Your task to perform on an android device: toggle wifi Image 0: 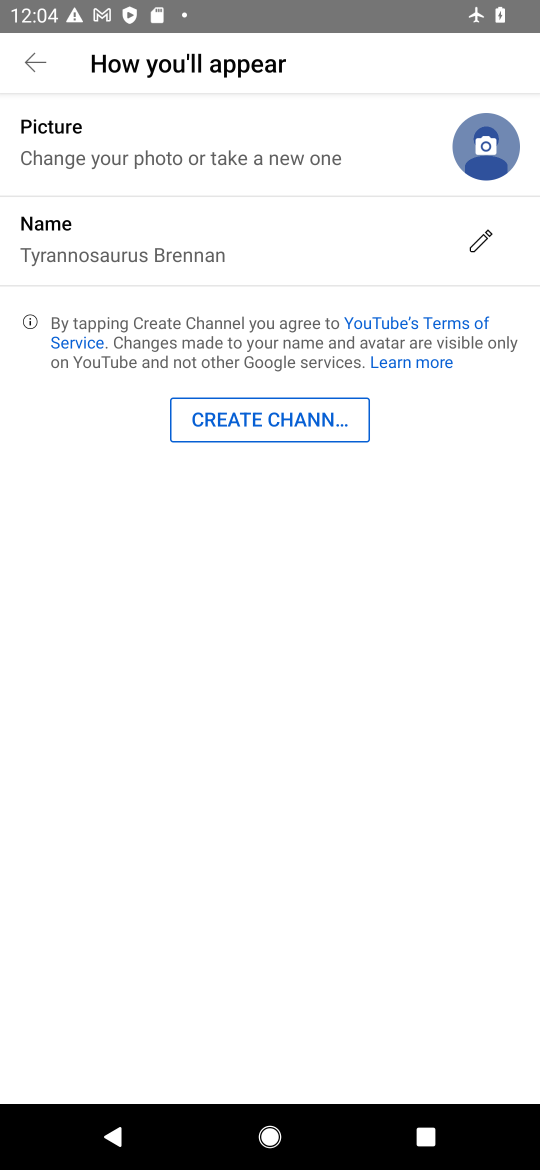
Step 0: press home button
Your task to perform on an android device: toggle wifi Image 1: 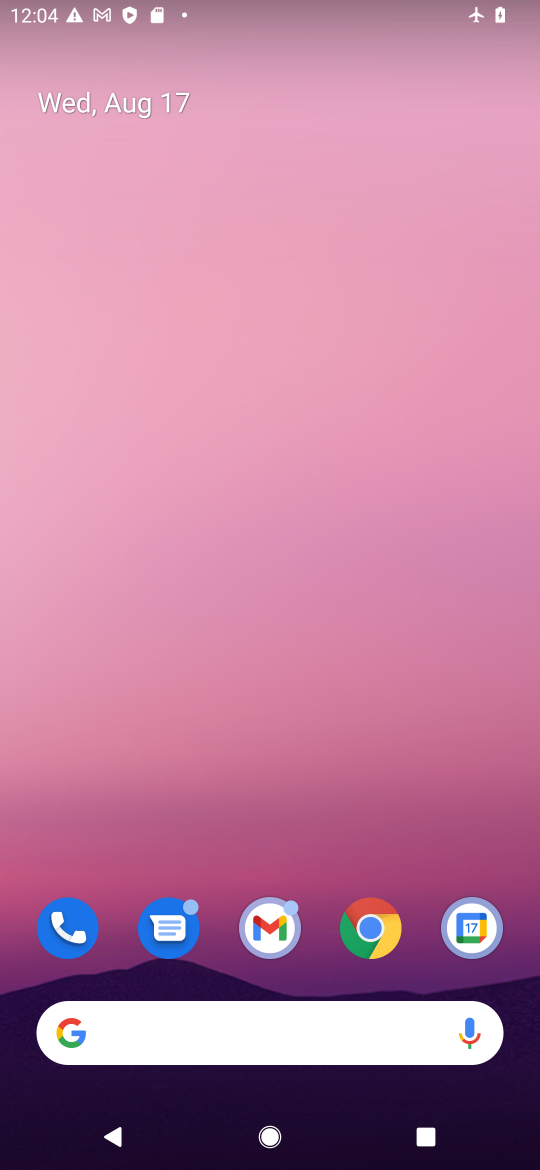
Step 1: drag from (357, 827) to (353, 112)
Your task to perform on an android device: toggle wifi Image 2: 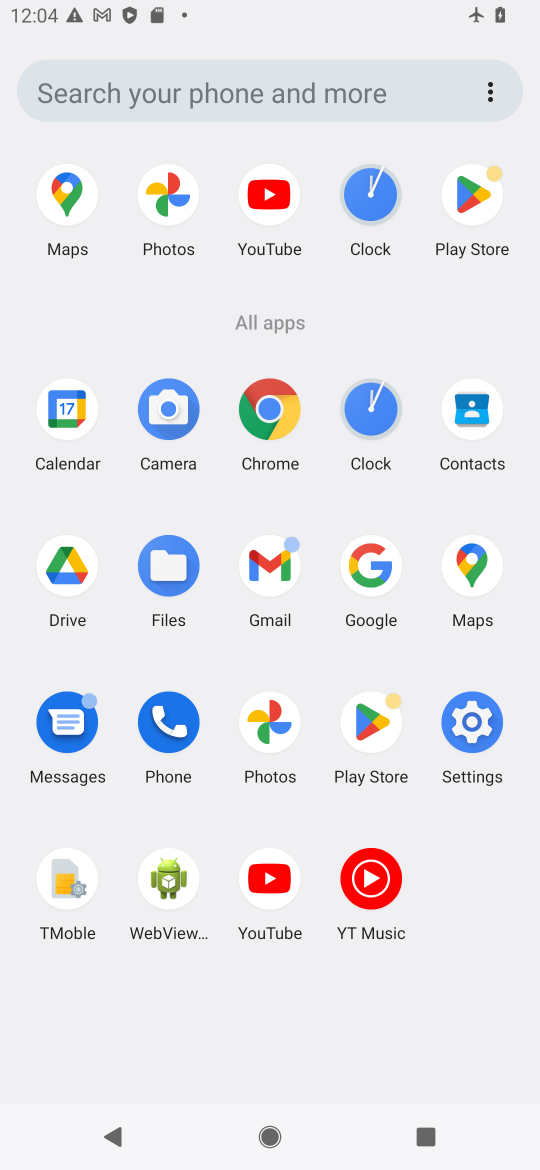
Step 2: click (455, 734)
Your task to perform on an android device: toggle wifi Image 3: 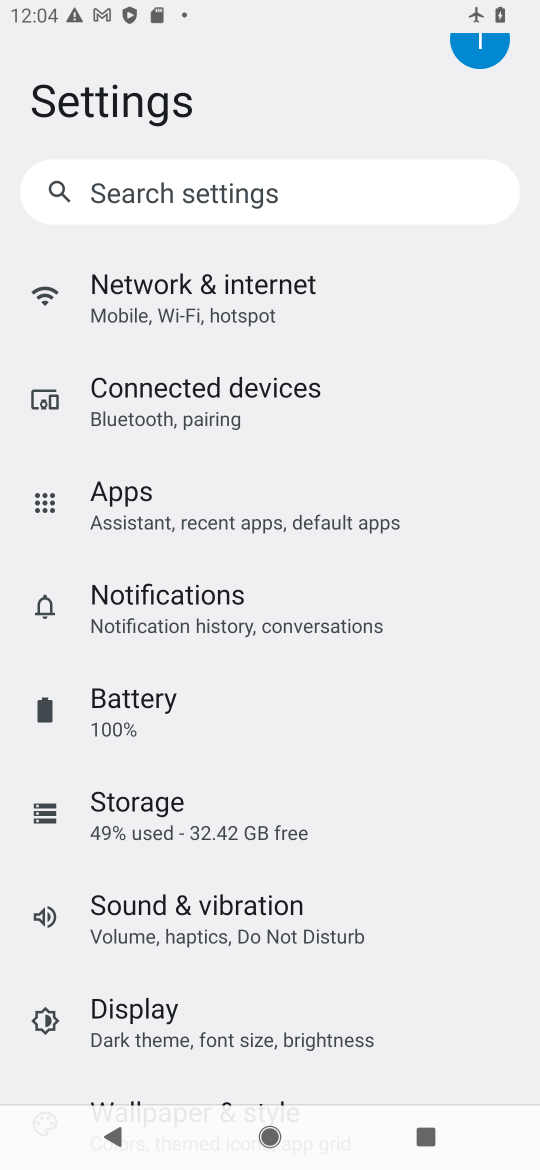
Step 3: click (289, 282)
Your task to perform on an android device: toggle wifi Image 4: 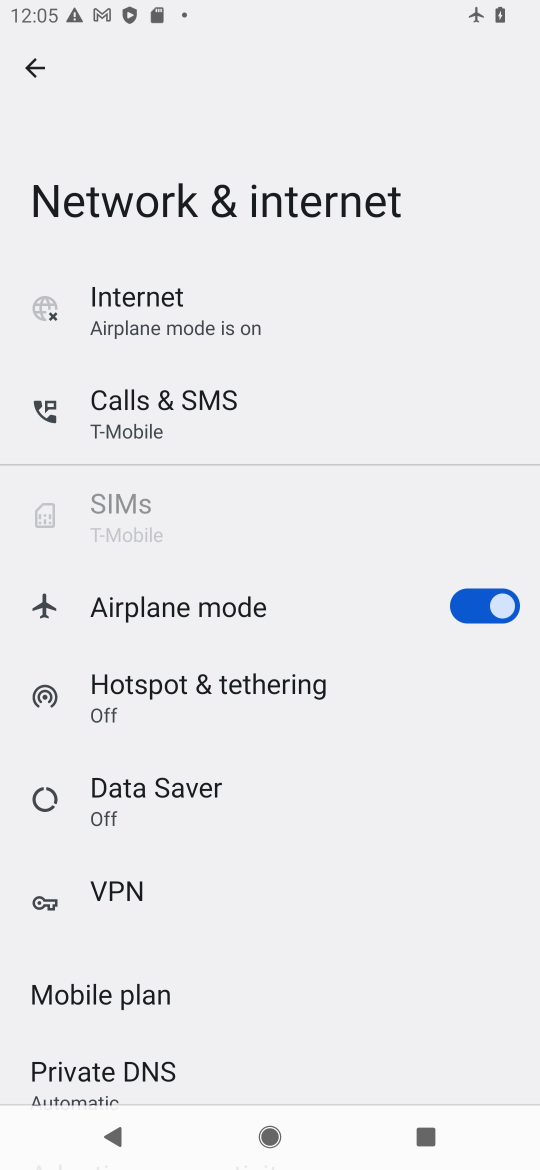
Step 4: click (288, 311)
Your task to perform on an android device: toggle wifi Image 5: 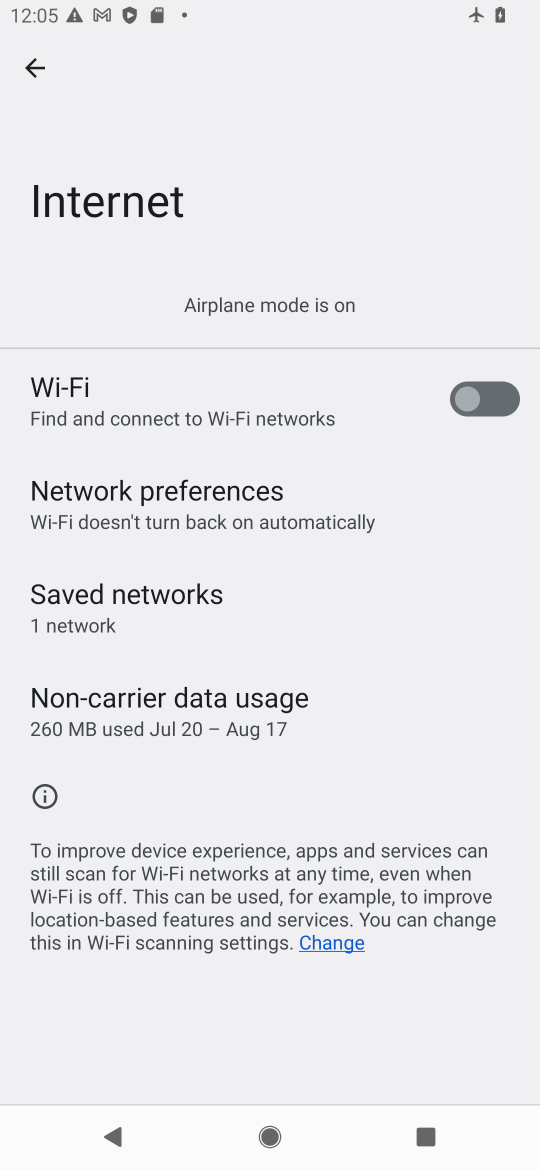
Step 5: click (490, 393)
Your task to perform on an android device: toggle wifi Image 6: 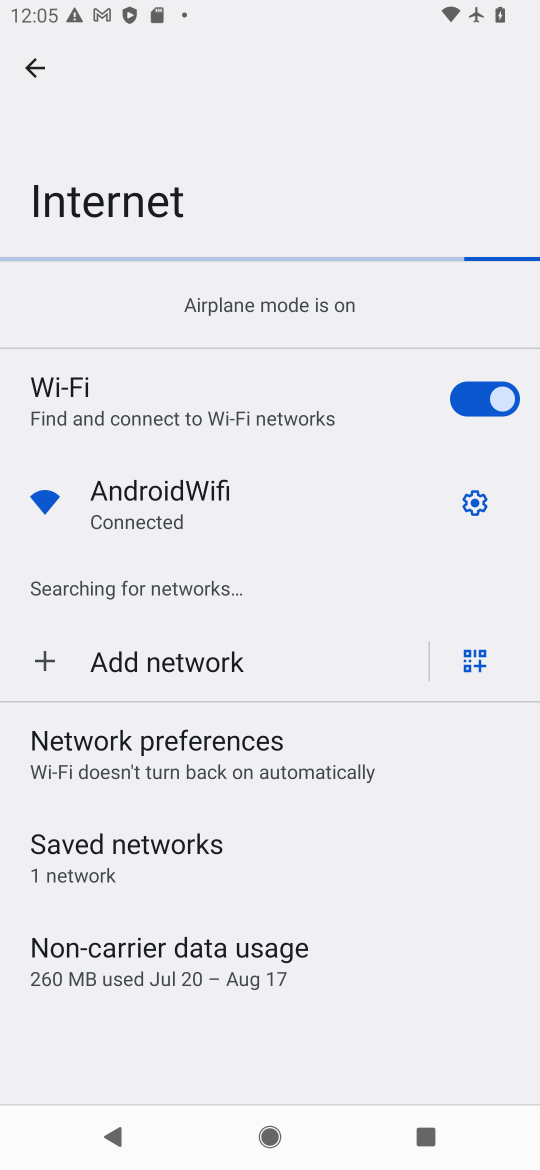
Step 6: task complete